Your task to perform on an android device: turn on notifications settings in the gmail app Image 0: 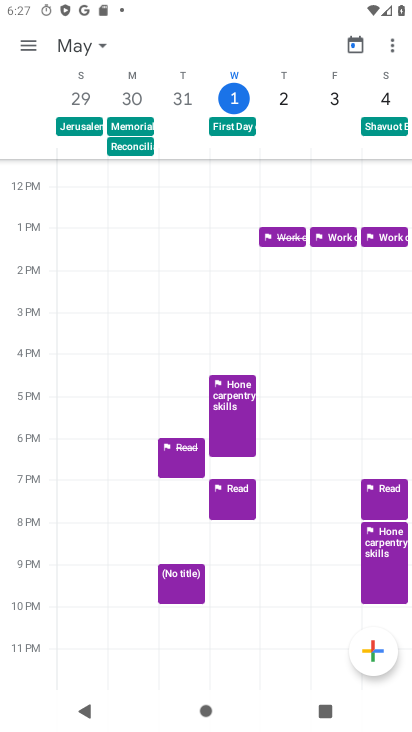
Step 0: press home button
Your task to perform on an android device: turn on notifications settings in the gmail app Image 1: 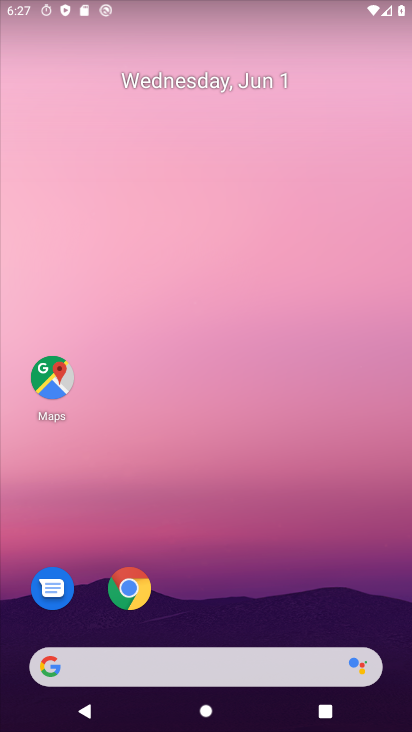
Step 1: drag from (217, 604) to (205, 202)
Your task to perform on an android device: turn on notifications settings in the gmail app Image 2: 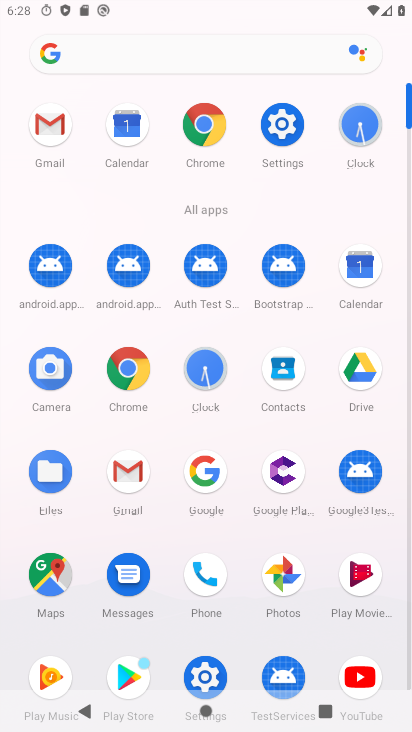
Step 2: click (123, 486)
Your task to perform on an android device: turn on notifications settings in the gmail app Image 3: 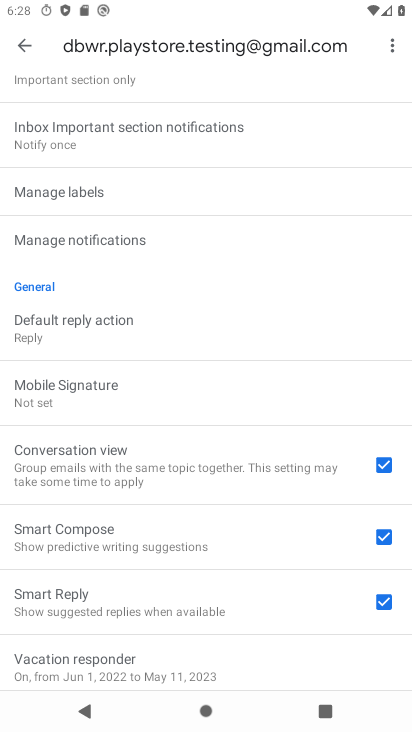
Step 3: click (113, 238)
Your task to perform on an android device: turn on notifications settings in the gmail app Image 4: 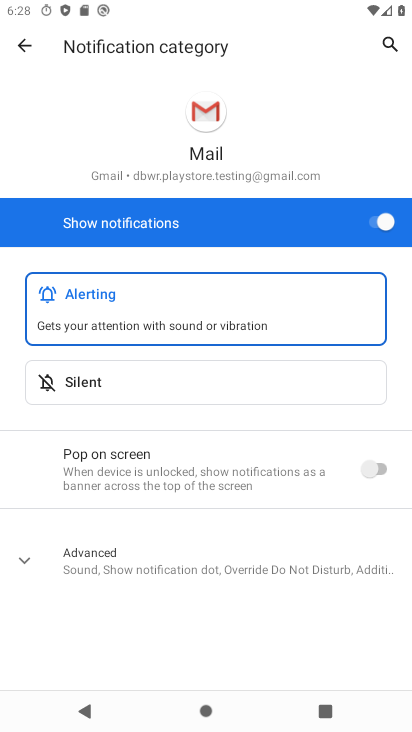
Step 4: task complete